Your task to perform on an android device: Open display settings Image 0: 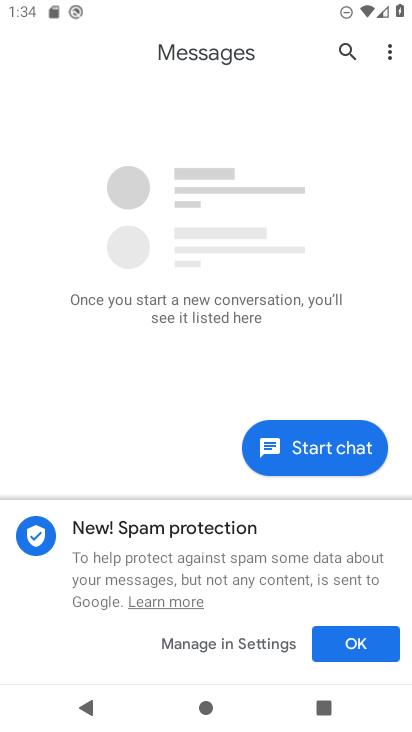
Step 0: press home button
Your task to perform on an android device: Open display settings Image 1: 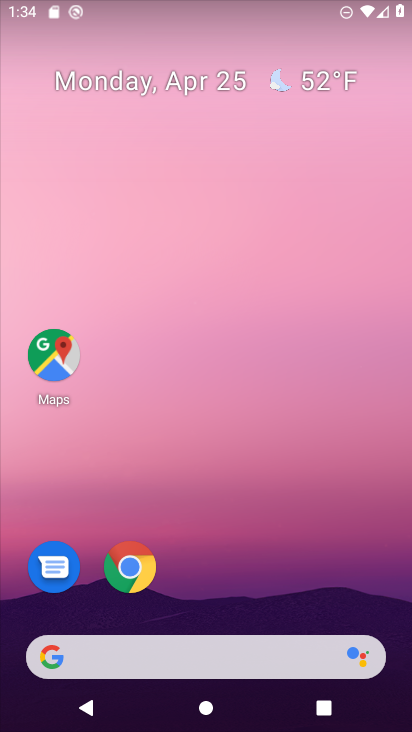
Step 1: drag from (282, 239) to (311, 2)
Your task to perform on an android device: Open display settings Image 2: 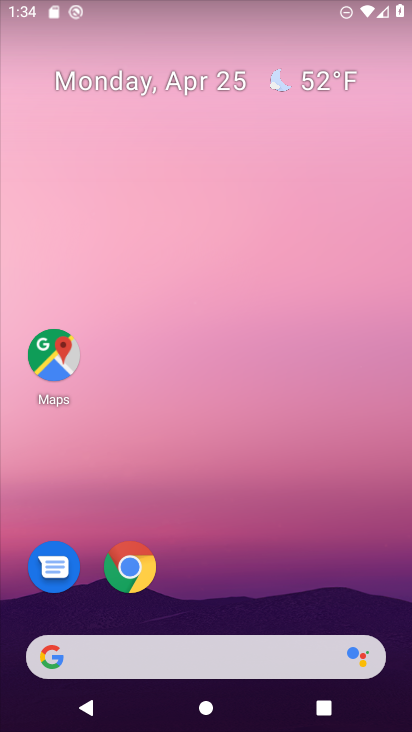
Step 2: drag from (254, 589) to (300, 0)
Your task to perform on an android device: Open display settings Image 3: 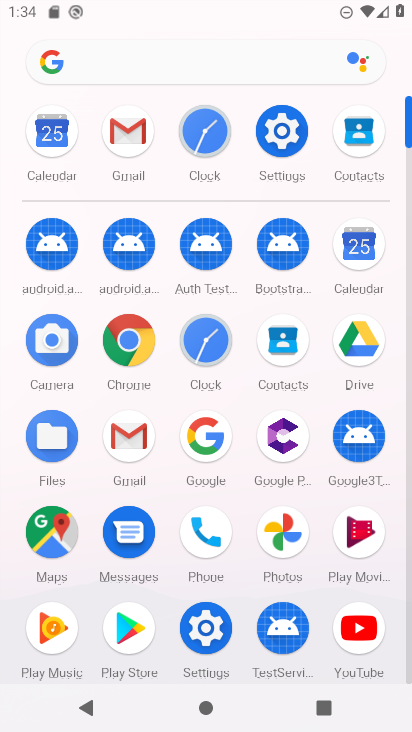
Step 3: click (284, 145)
Your task to perform on an android device: Open display settings Image 4: 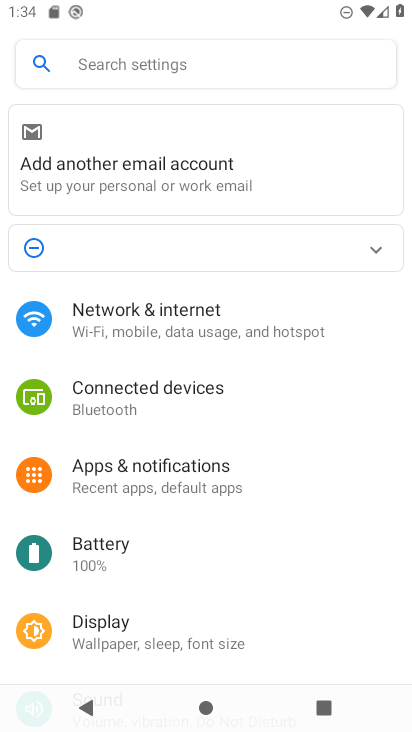
Step 4: click (183, 622)
Your task to perform on an android device: Open display settings Image 5: 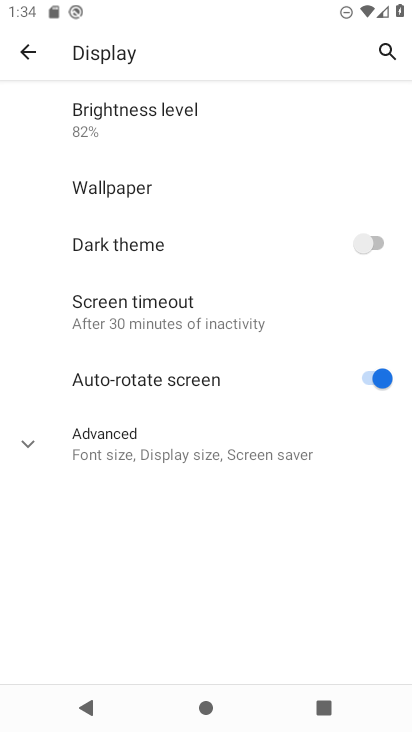
Step 5: task complete